Your task to perform on an android device: change the clock display to show seconds Image 0: 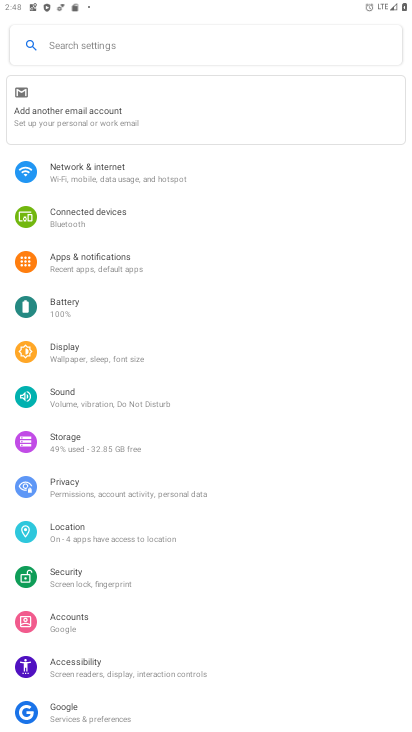
Step 0: task complete